Your task to perform on an android device: Open calendar and show me the second week of next month Image 0: 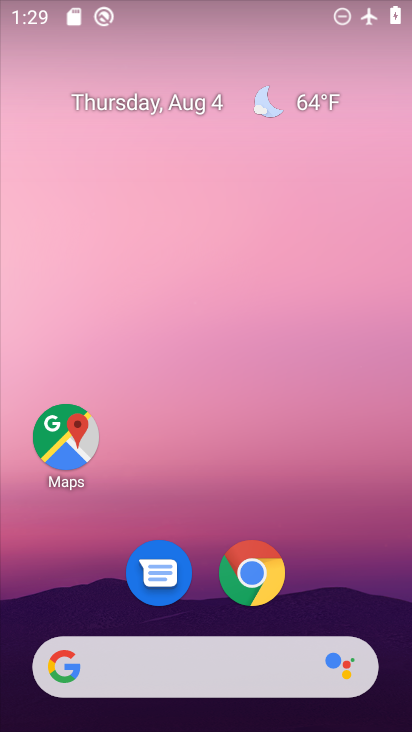
Step 0: drag from (368, 564) to (323, 74)
Your task to perform on an android device: Open calendar and show me the second week of next month Image 1: 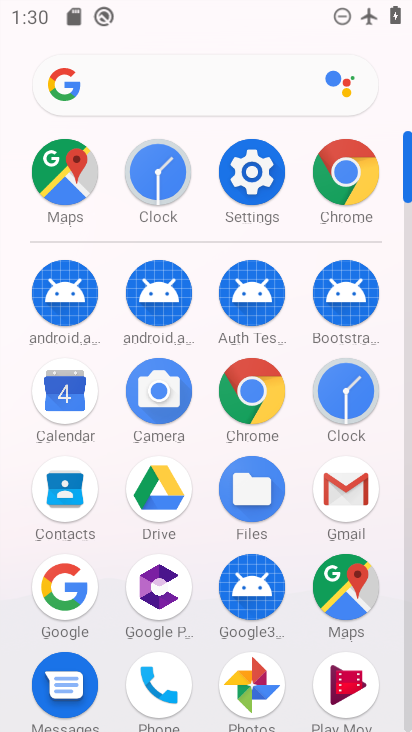
Step 1: click (73, 379)
Your task to perform on an android device: Open calendar and show me the second week of next month Image 2: 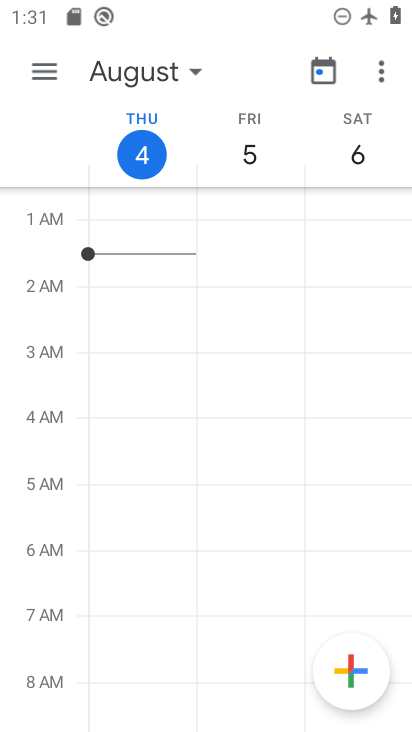
Step 2: click (105, 77)
Your task to perform on an android device: Open calendar and show me the second week of next month Image 3: 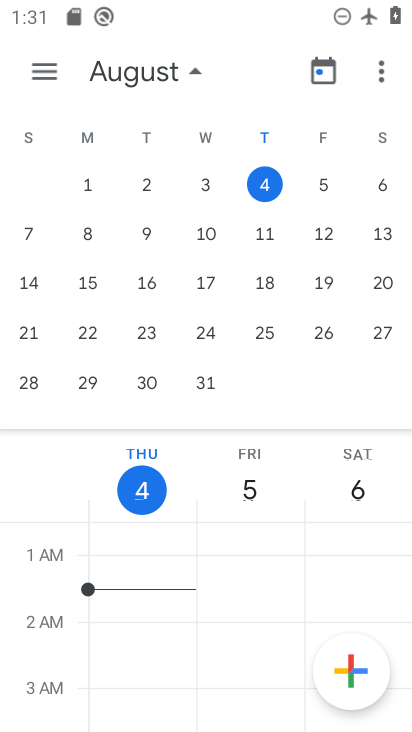
Step 3: drag from (379, 255) to (8, 238)
Your task to perform on an android device: Open calendar and show me the second week of next month Image 4: 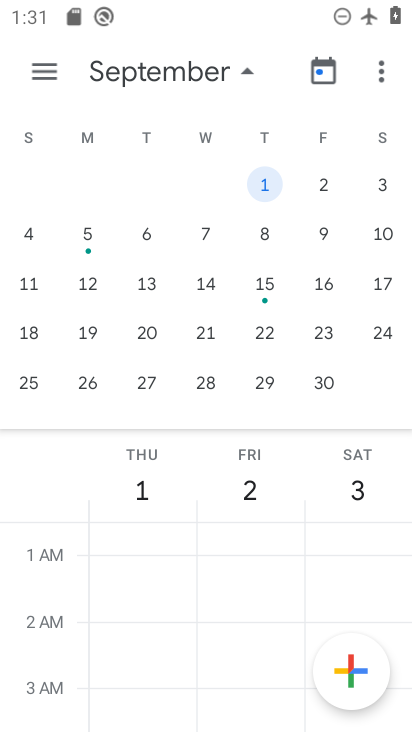
Step 4: click (159, 282)
Your task to perform on an android device: Open calendar and show me the second week of next month Image 5: 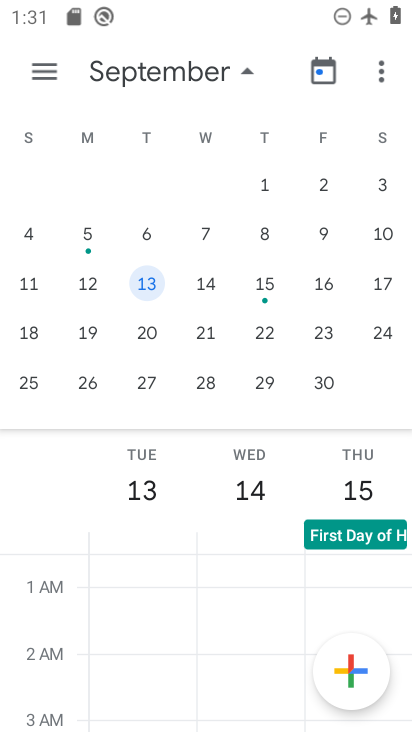
Step 5: click (37, 67)
Your task to perform on an android device: Open calendar and show me the second week of next month Image 6: 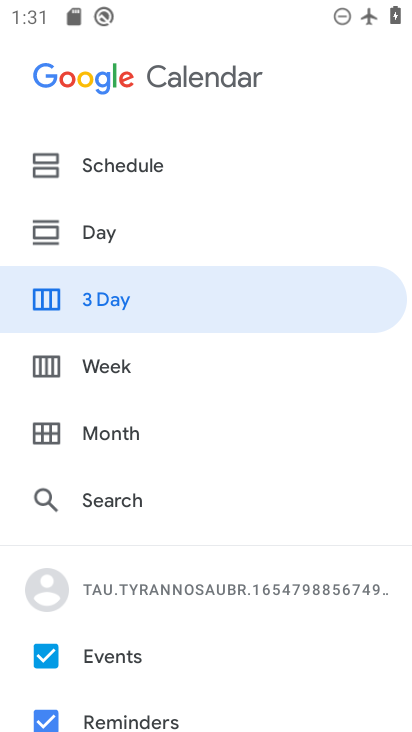
Step 6: click (128, 363)
Your task to perform on an android device: Open calendar and show me the second week of next month Image 7: 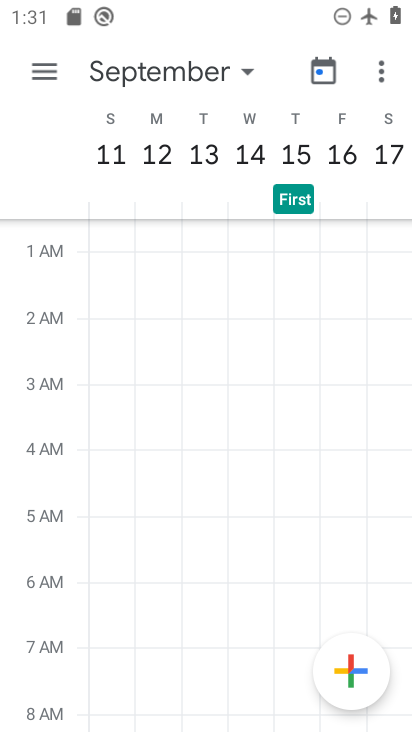
Step 7: task complete